Your task to perform on an android device: turn pop-ups off in chrome Image 0: 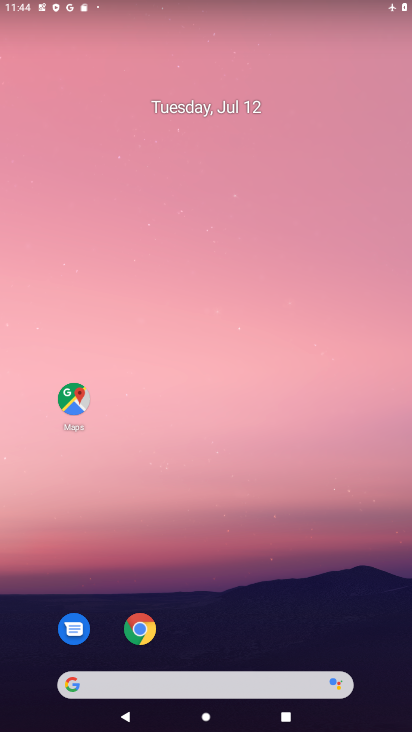
Step 0: drag from (217, 606) to (240, 165)
Your task to perform on an android device: turn pop-ups off in chrome Image 1: 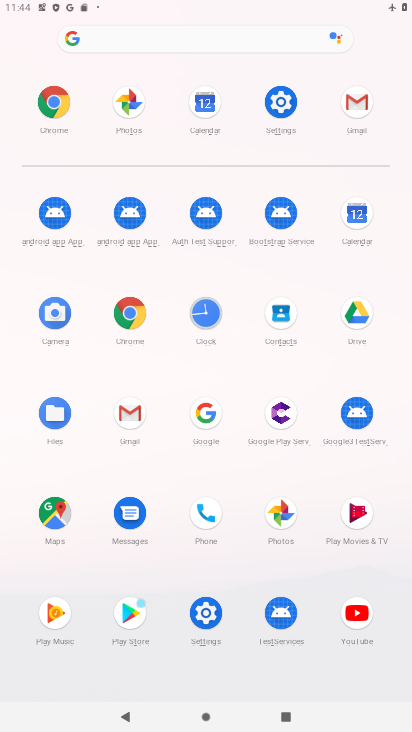
Step 1: click (123, 312)
Your task to perform on an android device: turn pop-ups off in chrome Image 2: 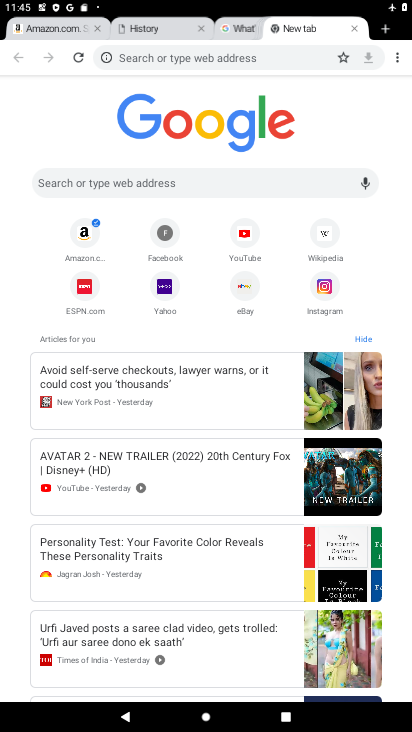
Step 2: click (404, 52)
Your task to perform on an android device: turn pop-ups off in chrome Image 3: 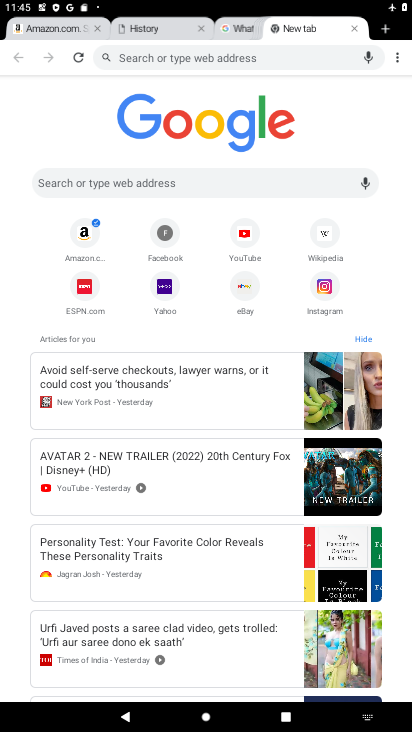
Step 3: click (400, 50)
Your task to perform on an android device: turn pop-ups off in chrome Image 4: 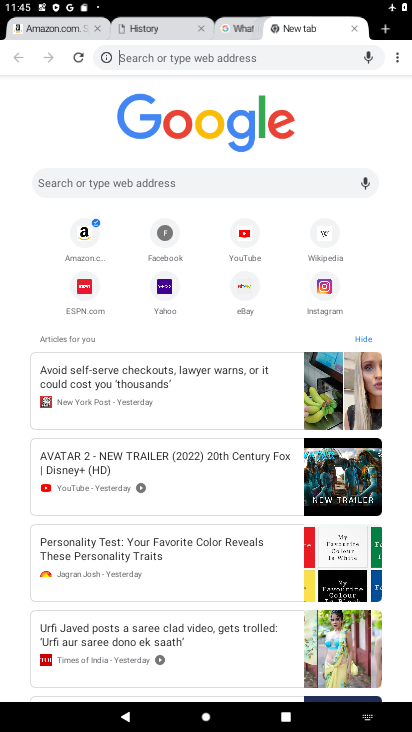
Step 4: click (397, 55)
Your task to perform on an android device: turn pop-ups off in chrome Image 5: 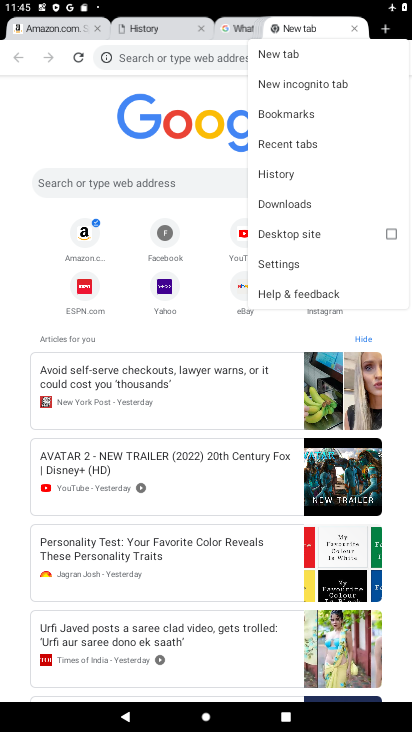
Step 5: click (299, 255)
Your task to perform on an android device: turn pop-ups off in chrome Image 6: 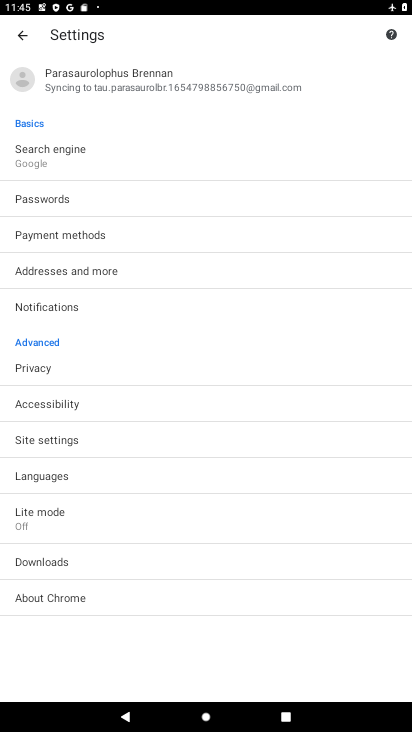
Step 6: click (73, 433)
Your task to perform on an android device: turn pop-ups off in chrome Image 7: 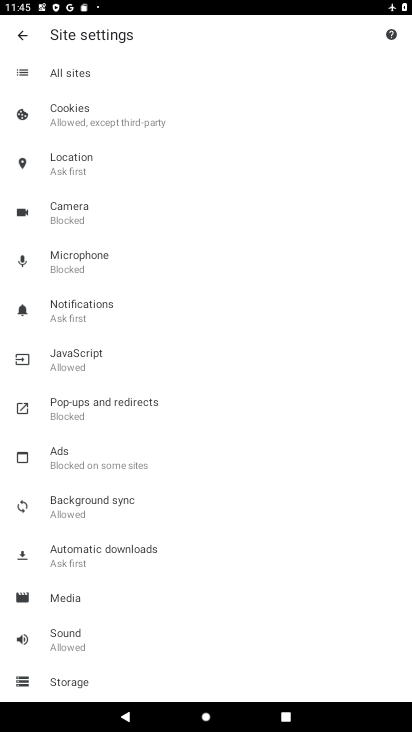
Step 7: click (92, 402)
Your task to perform on an android device: turn pop-ups off in chrome Image 8: 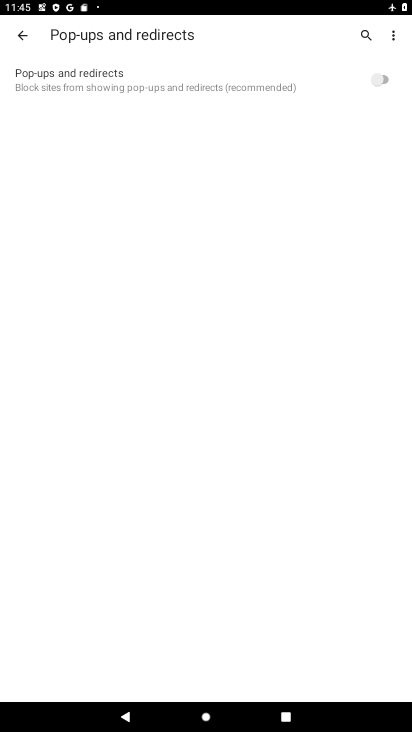
Step 8: task complete